Your task to perform on an android device: change alarm snooze length Image 0: 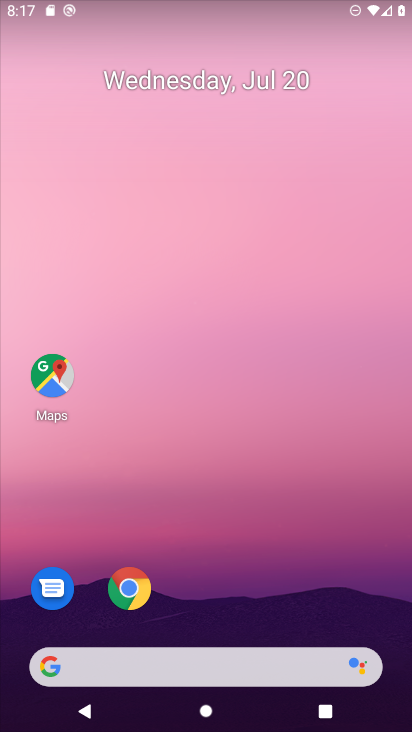
Step 0: drag from (27, 694) to (224, 17)
Your task to perform on an android device: change alarm snooze length Image 1: 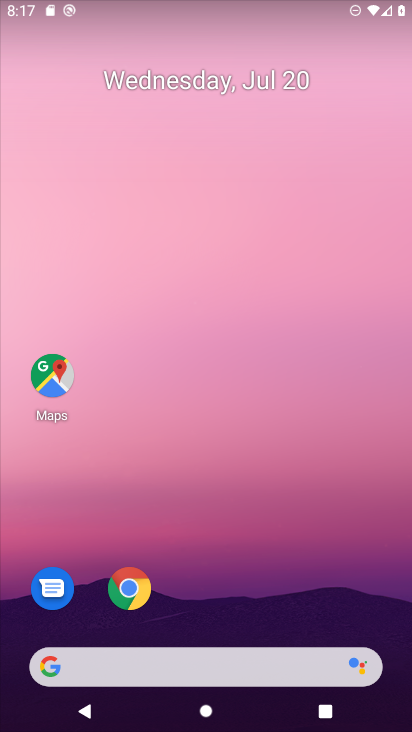
Step 1: drag from (29, 710) to (239, 139)
Your task to perform on an android device: change alarm snooze length Image 2: 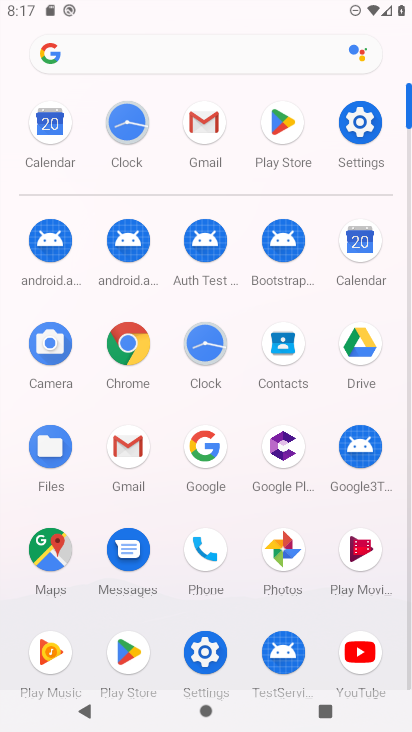
Step 2: click (201, 658)
Your task to perform on an android device: change alarm snooze length Image 3: 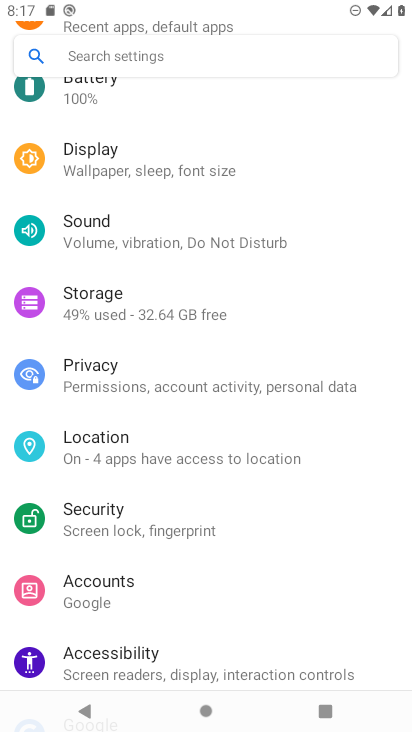
Step 3: press home button
Your task to perform on an android device: change alarm snooze length Image 4: 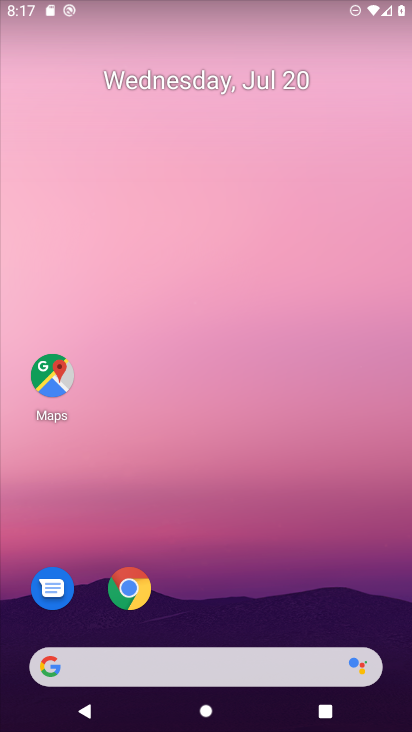
Step 4: drag from (57, 685) to (272, 28)
Your task to perform on an android device: change alarm snooze length Image 5: 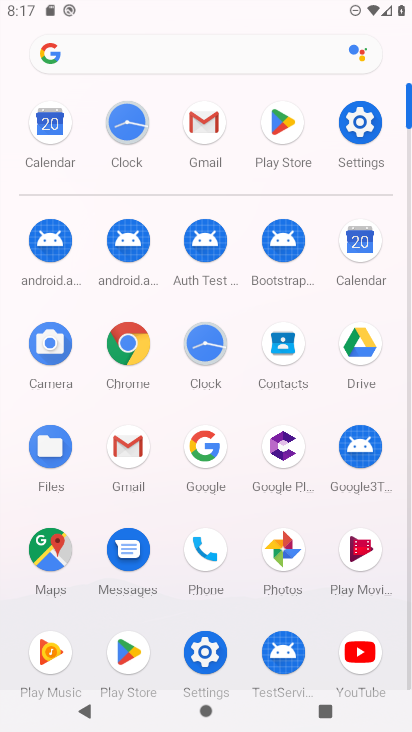
Step 5: click (219, 358)
Your task to perform on an android device: change alarm snooze length Image 6: 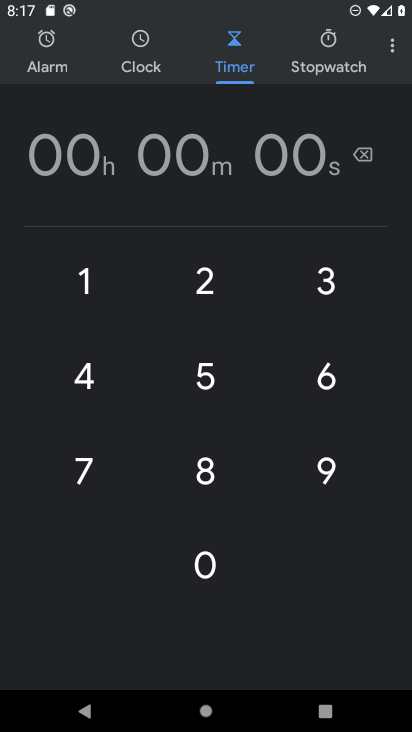
Step 6: click (394, 42)
Your task to perform on an android device: change alarm snooze length Image 7: 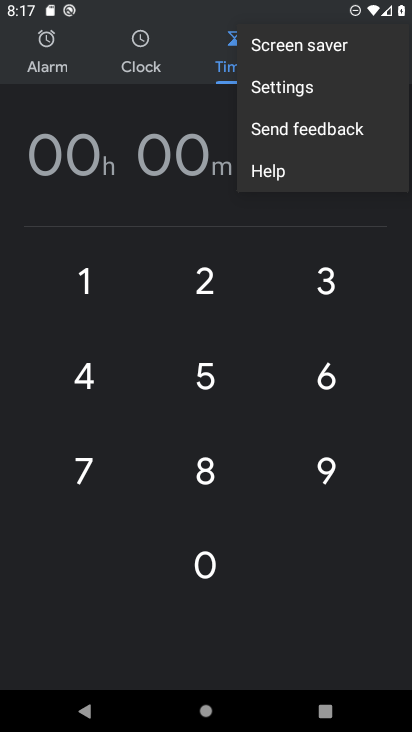
Step 7: click (279, 79)
Your task to perform on an android device: change alarm snooze length Image 8: 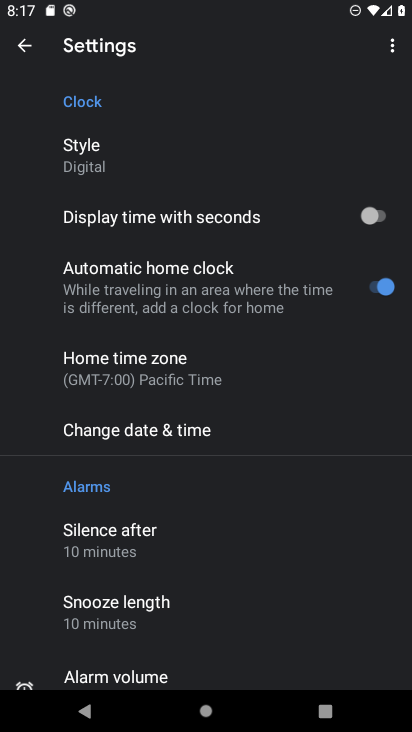
Step 8: click (120, 618)
Your task to perform on an android device: change alarm snooze length Image 9: 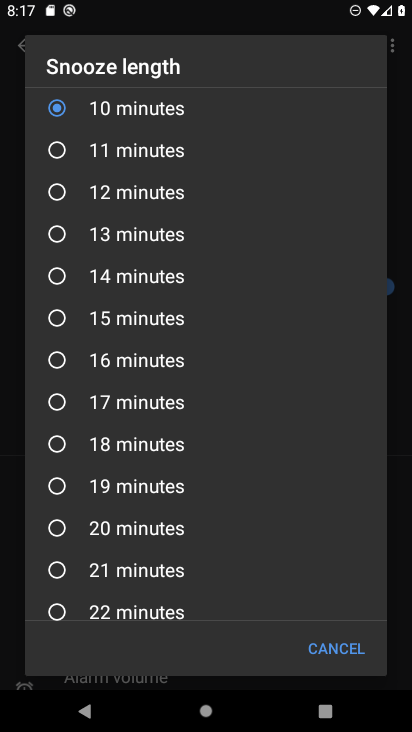
Step 9: click (54, 315)
Your task to perform on an android device: change alarm snooze length Image 10: 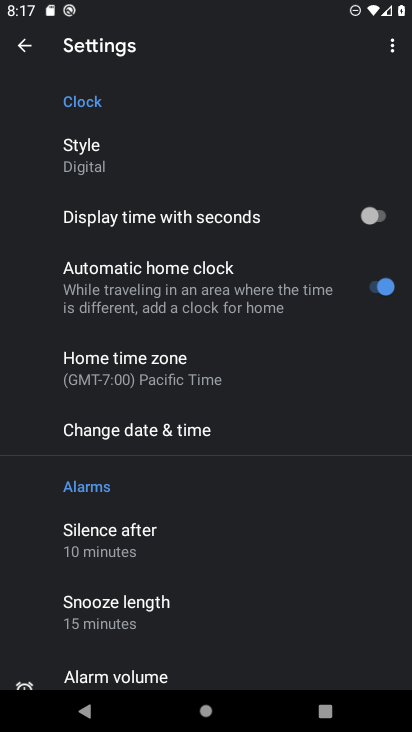
Step 10: task complete